Your task to perform on an android device: open app "Google Translate" (install if not already installed) Image 0: 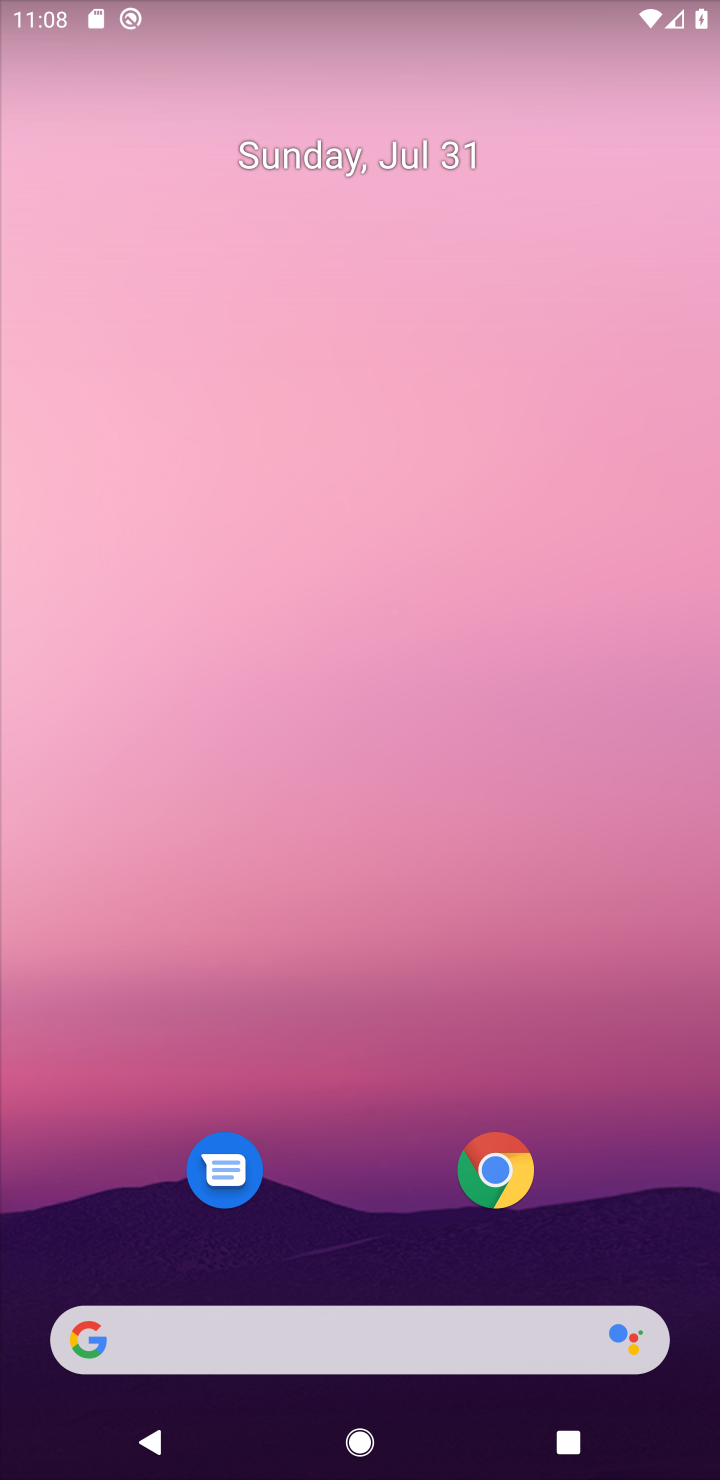
Step 0: drag from (664, 1209) to (432, 45)
Your task to perform on an android device: open app "Google Translate" (install if not already installed) Image 1: 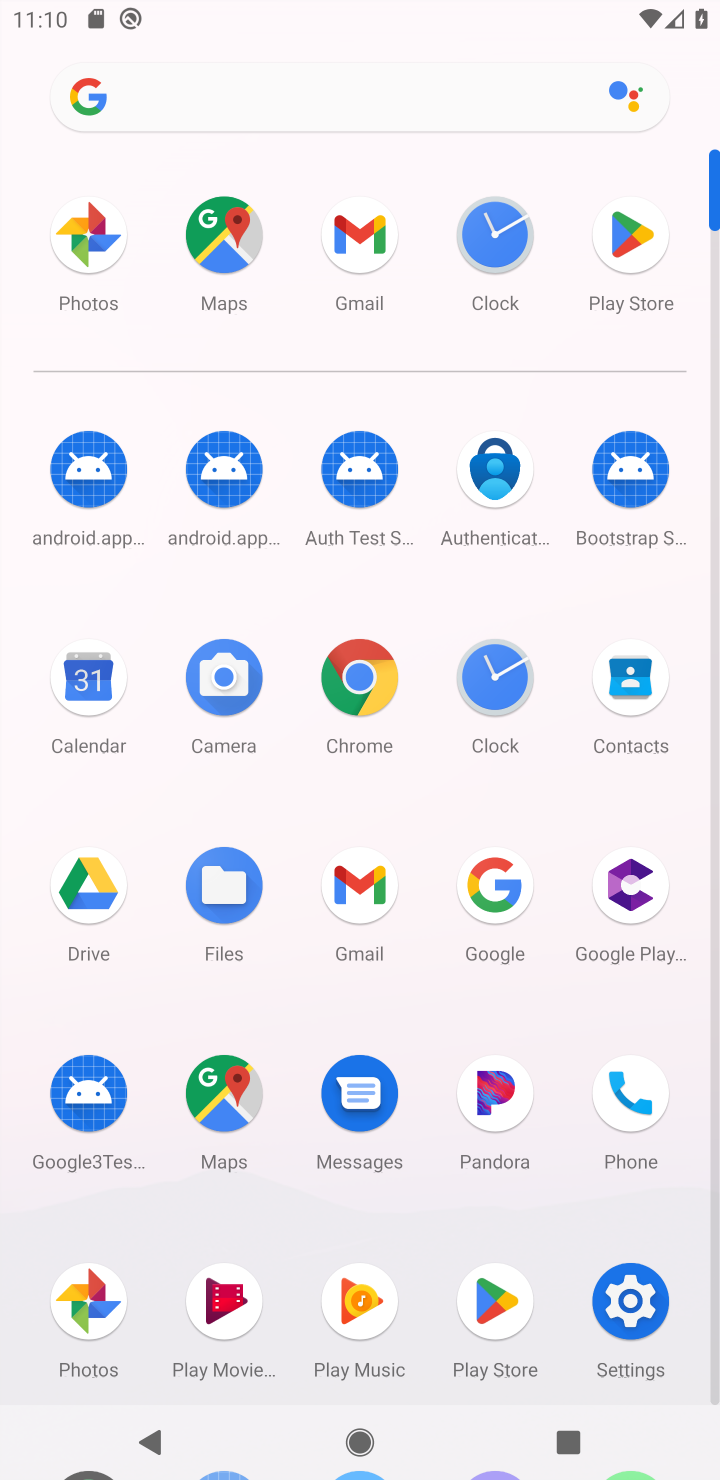
Step 1: click (636, 245)
Your task to perform on an android device: open app "Google Translate" (install if not already installed) Image 2: 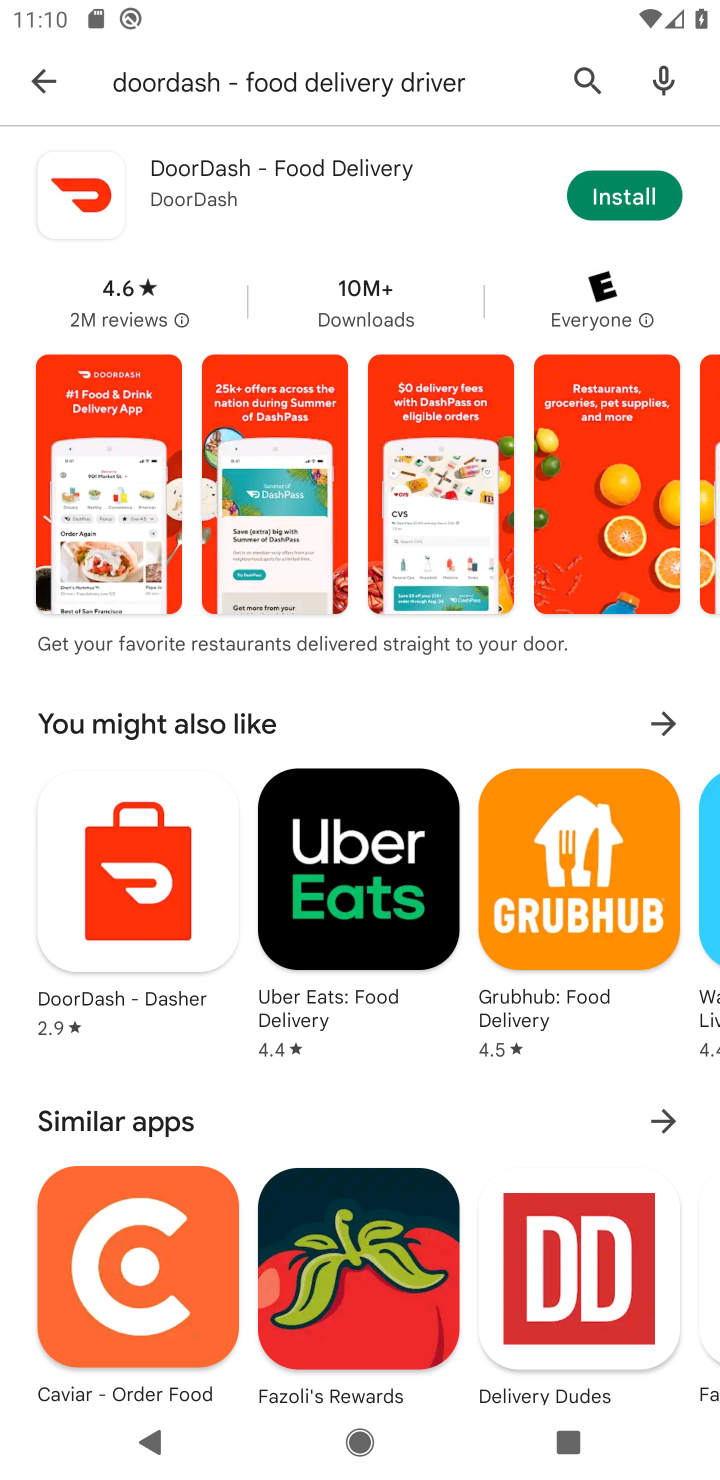
Step 2: press back button
Your task to perform on an android device: open app "Google Translate" (install if not already installed) Image 3: 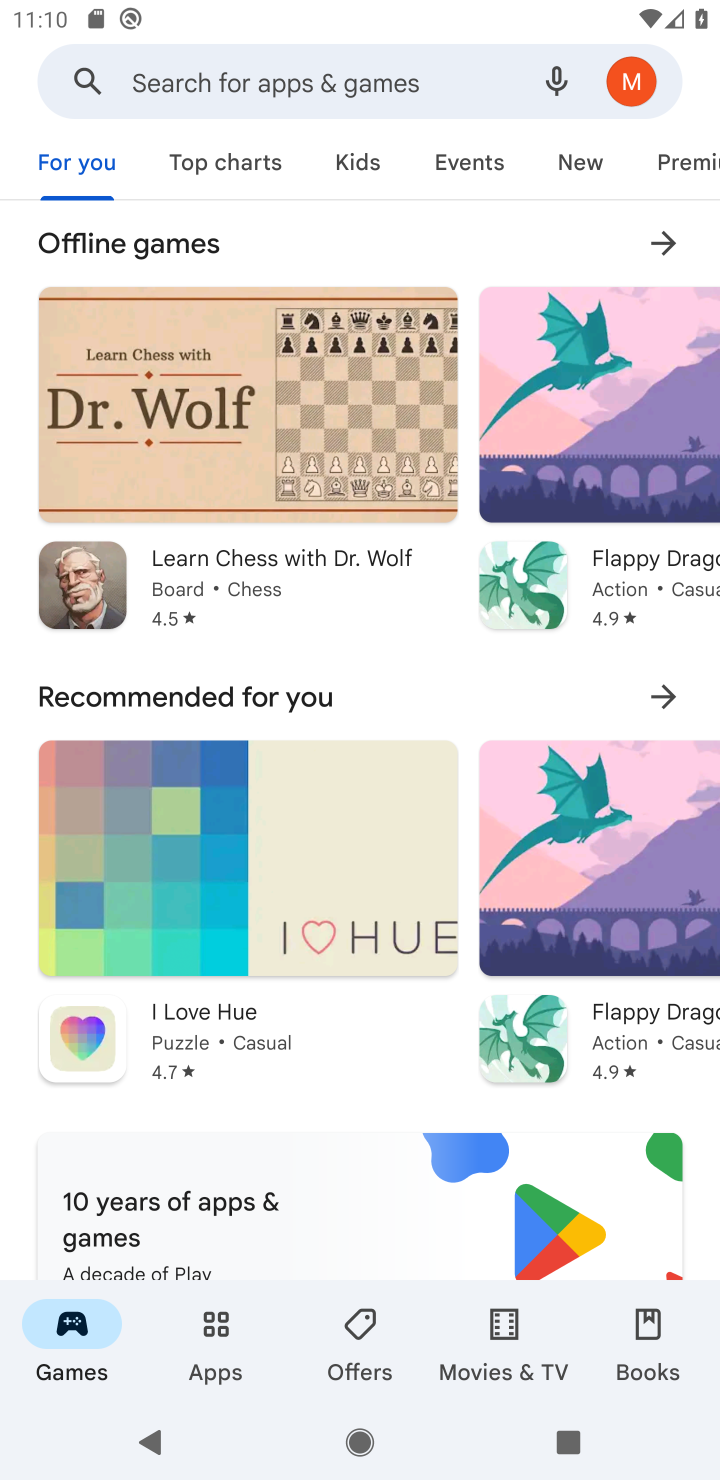
Step 3: click (201, 77)
Your task to perform on an android device: open app "Google Translate" (install if not already installed) Image 4: 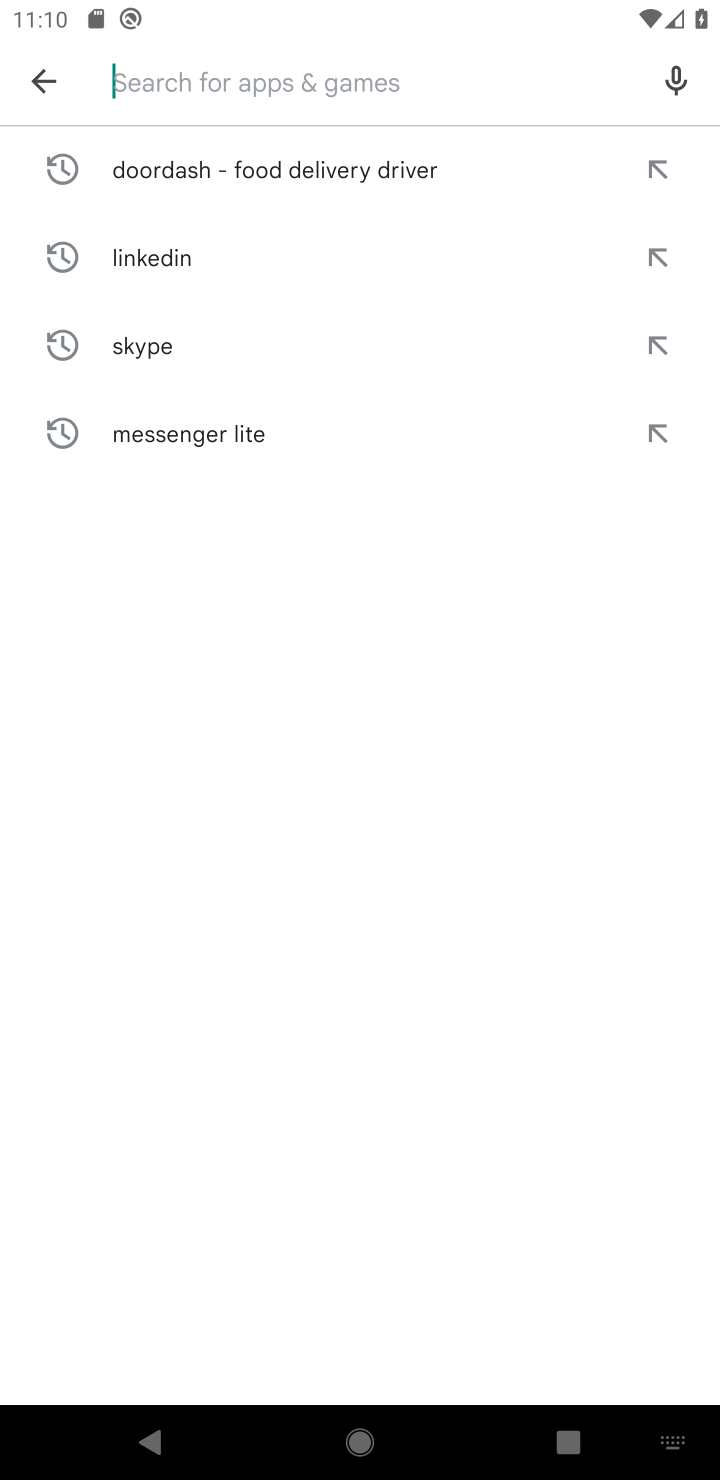
Step 4: type "Google Translate"
Your task to perform on an android device: open app "Google Translate" (install if not already installed) Image 5: 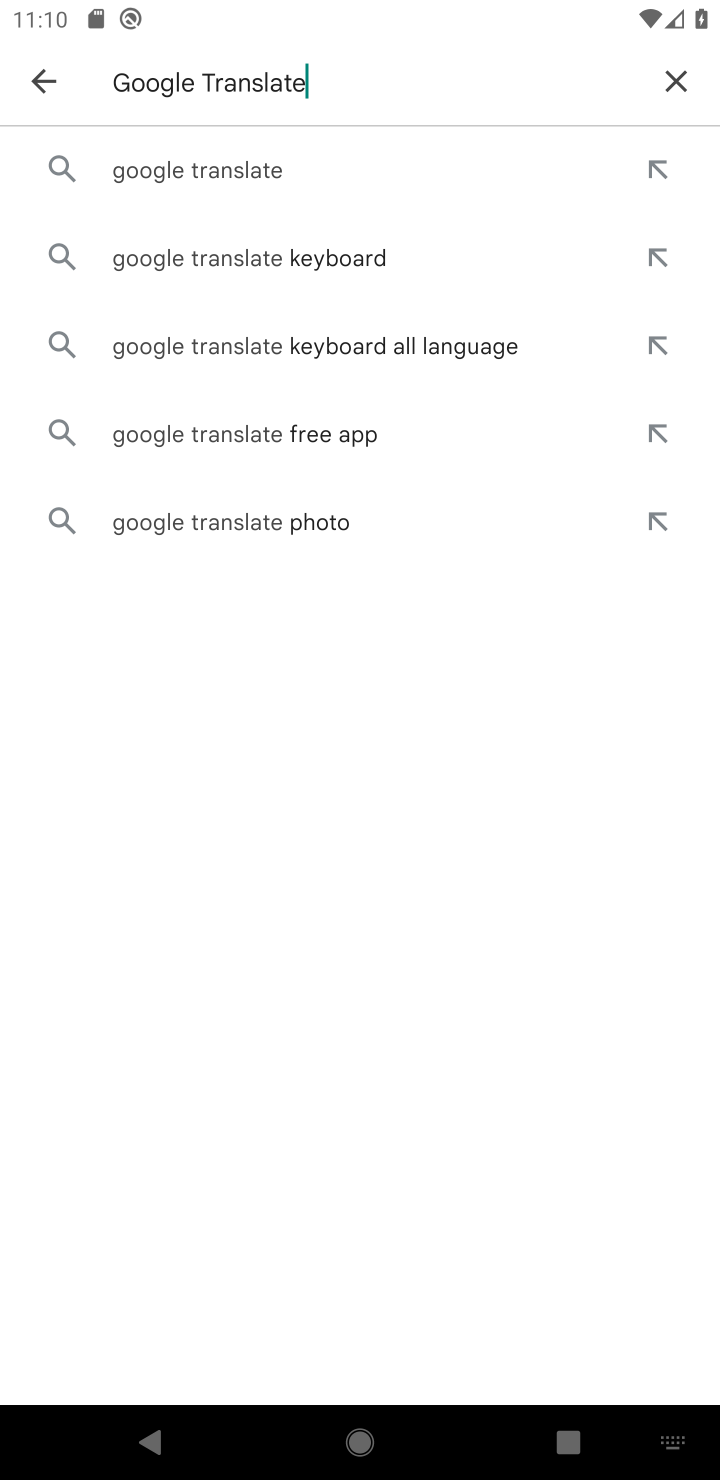
Step 5: click (201, 172)
Your task to perform on an android device: open app "Google Translate" (install if not already installed) Image 6: 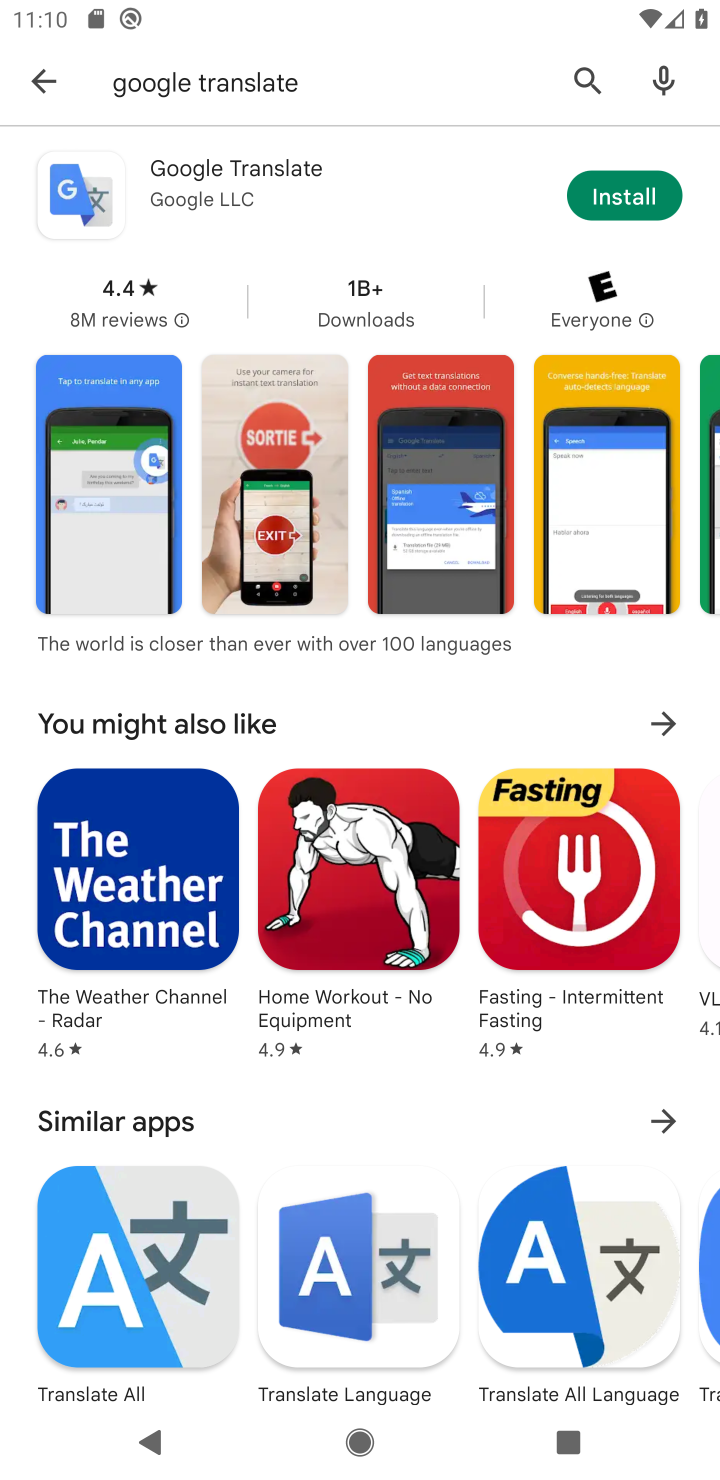
Step 6: task complete